Your task to perform on an android device: turn on the 12-hour format for clock Image 0: 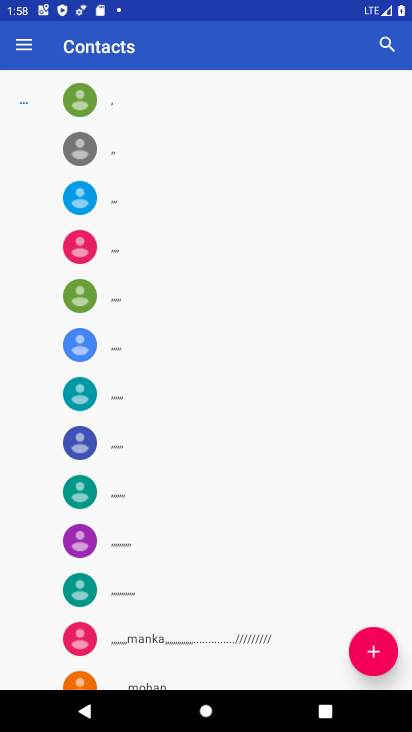
Step 0: press home button
Your task to perform on an android device: turn on the 12-hour format for clock Image 1: 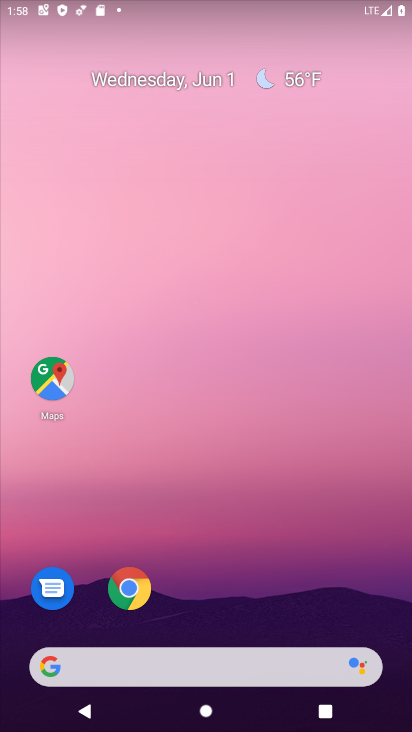
Step 1: drag from (307, 558) to (127, 18)
Your task to perform on an android device: turn on the 12-hour format for clock Image 2: 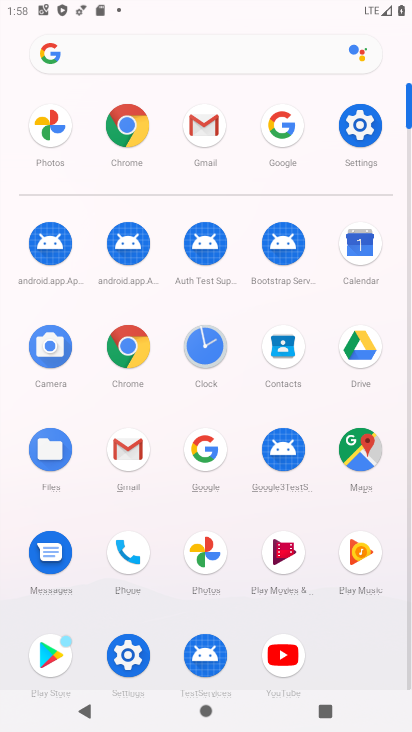
Step 2: click (206, 358)
Your task to perform on an android device: turn on the 12-hour format for clock Image 3: 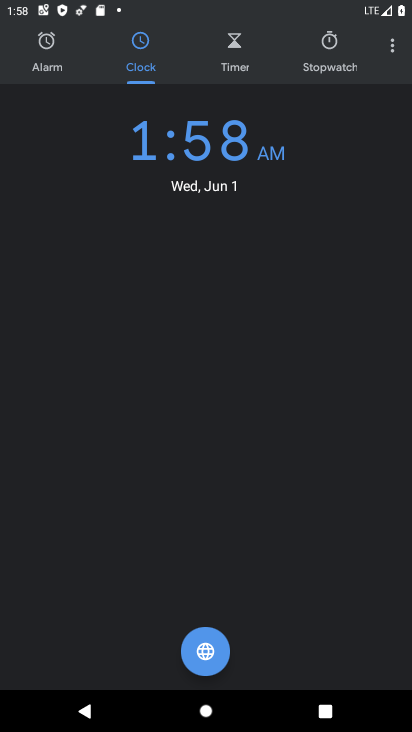
Step 3: click (389, 46)
Your task to perform on an android device: turn on the 12-hour format for clock Image 4: 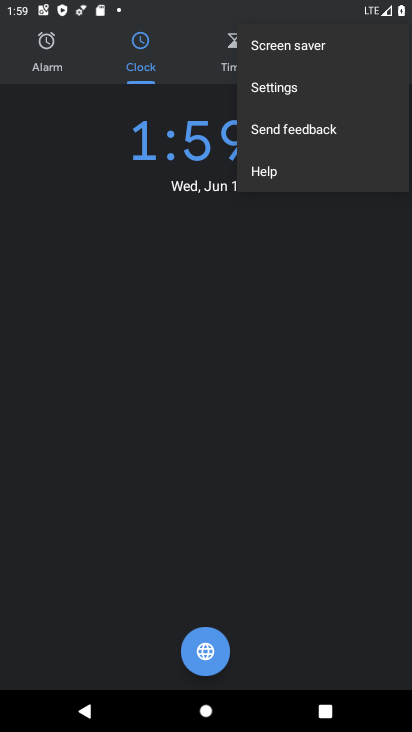
Step 4: click (281, 86)
Your task to perform on an android device: turn on the 12-hour format for clock Image 5: 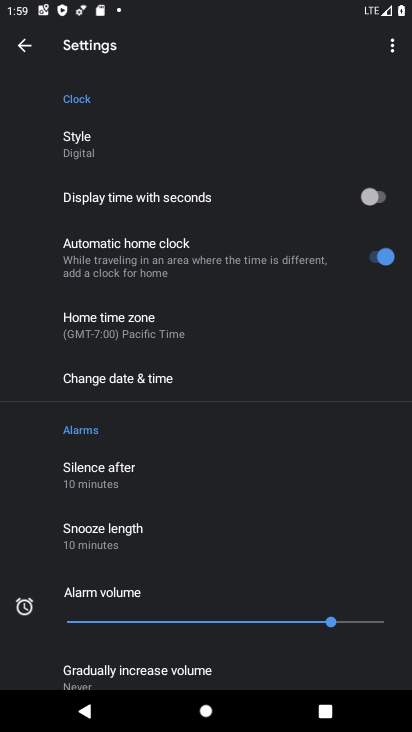
Step 5: click (164, 379)
Your task to perform on an android device: turn on the 12-hour format for clock Image 6: 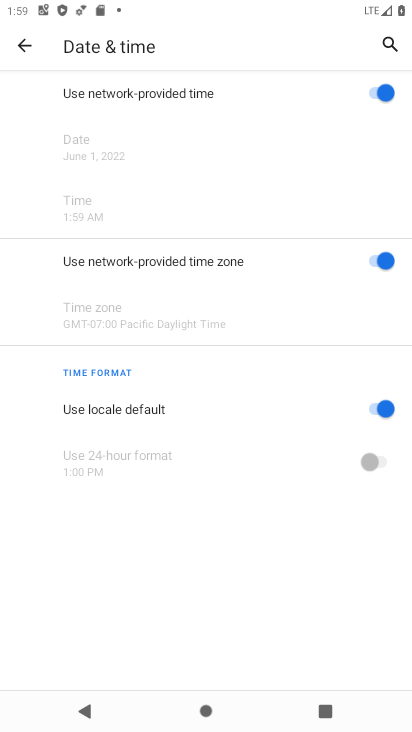
Step 6: task complete